Your task to perform on an android device: Go to Google Image 0: 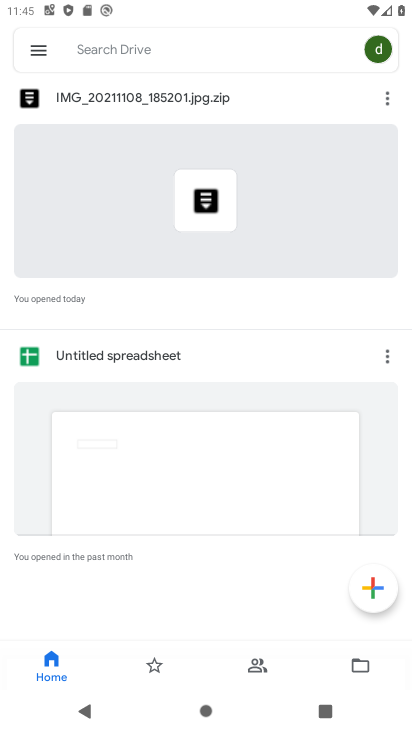
Step 0: press home button
Your task to perform on an android device: Go to Google Image 1: 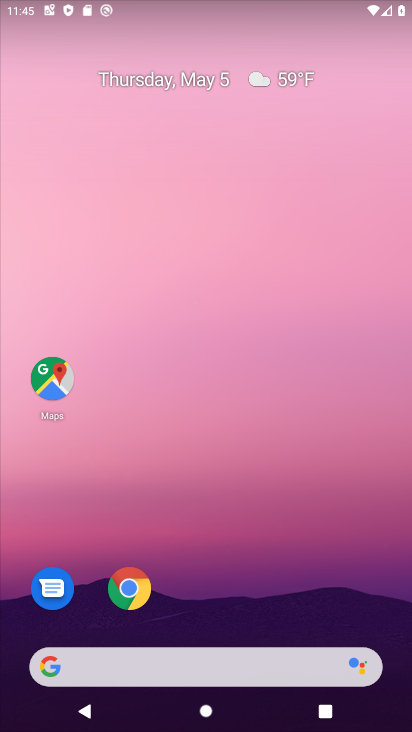
Step 1: drag from (202, 563) to (323, 53)
Your task to perform on an android device: Go to Google Image 2: 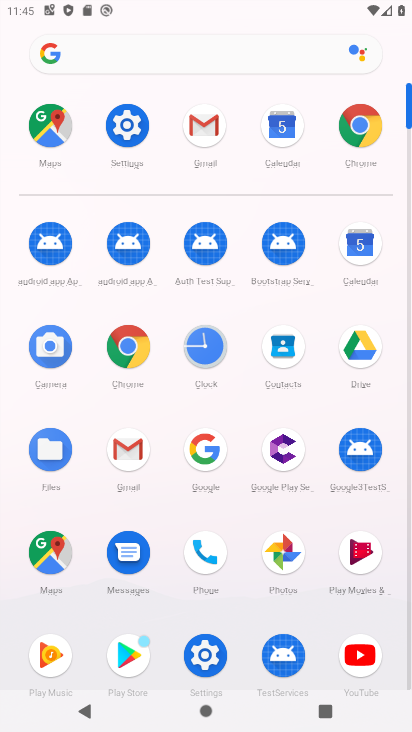
Step 2: click (202, 447)
Your task to perform on an android device: Go to Google Image 3: 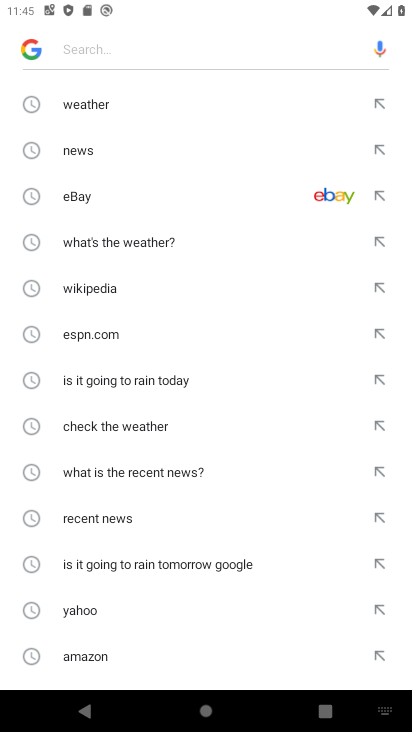
Step 3: click (34, 45)
Your task to perform on an android device: Go to Google Image 4: 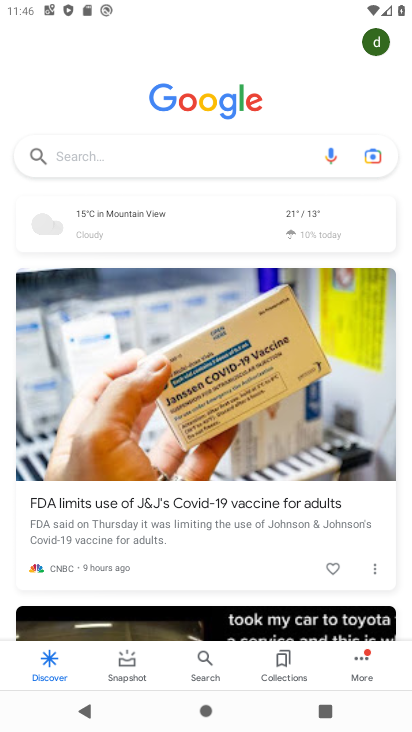
Step 4: task complete